Your task to perform on an android device: What's the weather? Image 0: 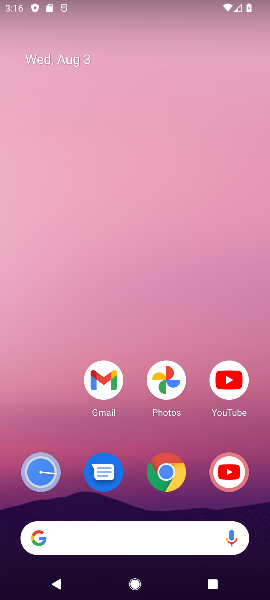
Step 0: drag from (191, 496) to (78, 26)
Your task to perform on an android device: What's the weather? Image 1: 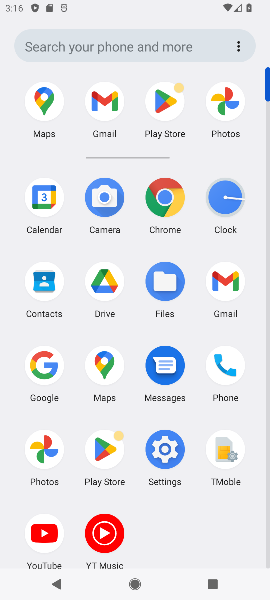
Step 1: click (48, 371)
Your task to perform on an android device: What's the weather? Image 2: 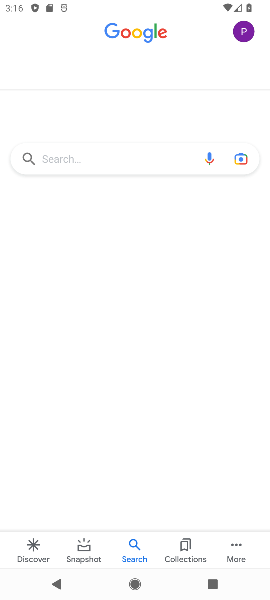
Step 2: click (71, 165)
Your task to perform on an android device: What's the weather? Image 3: 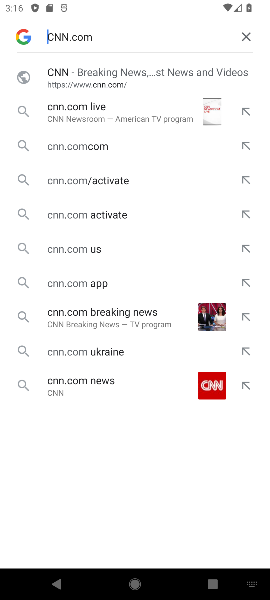
Step 3: click (244, 28)
Your task to perform on an android device: What's the weather? Image 4: 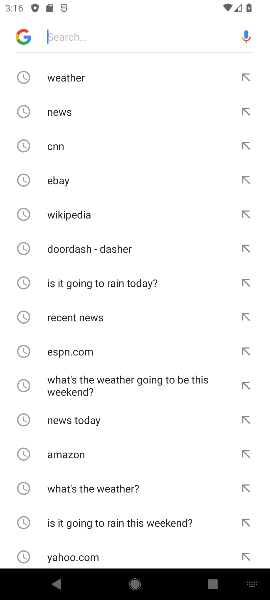
Step 4: type "What's the weather?"
Your task to perform on an android device: What's the weather? Image 5: 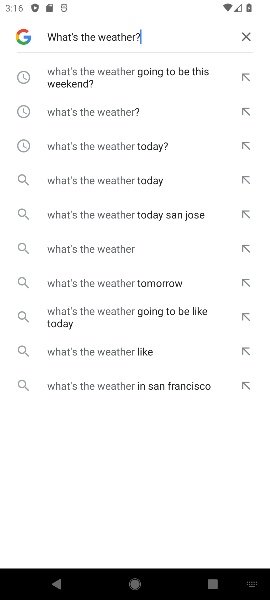
Step 5: click (81, 111)
Your task to perform on an android device: What's the weather? Image 6: 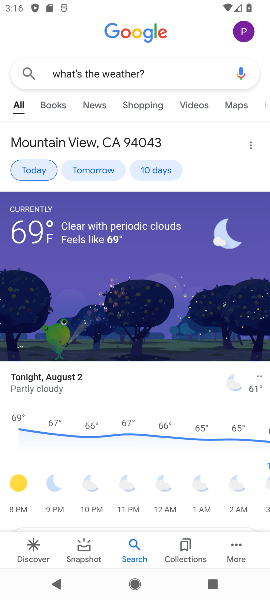
Step 6: task complete